Your task to perform on an android device: Find coffee shops on Maps Image 0: 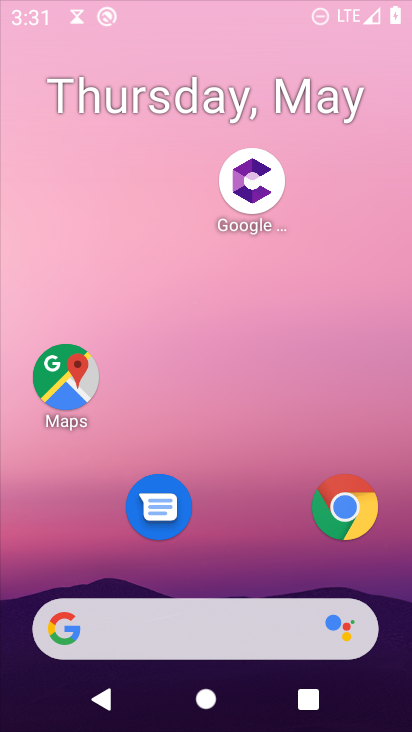
Step 0: press home button
Your task to perform on an android device: Find coffee shops on Maps Image 1: 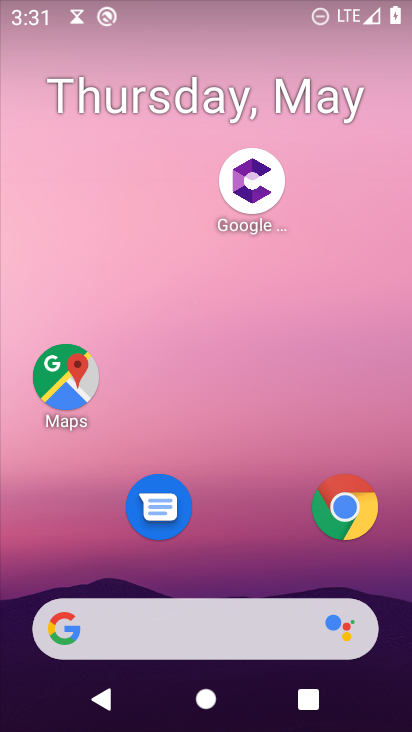
Step 1: click (64, 392)
Your task to perform on an android device: Find coffee shops on Maps Image 2: 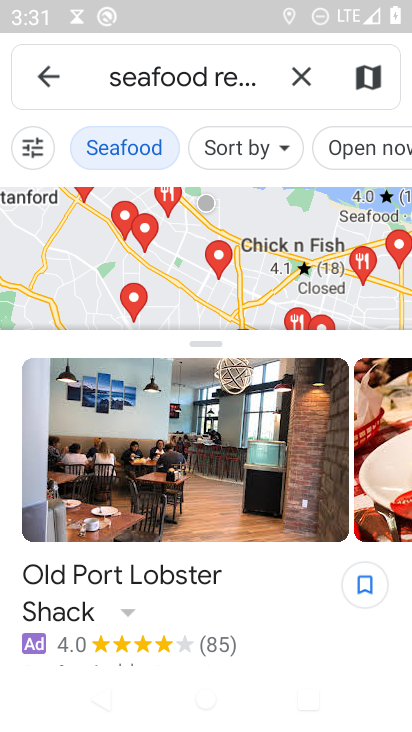
Step 2: click (298, 81)
Your task to perform on an android device: Find coffee shops on Maps Image 3: 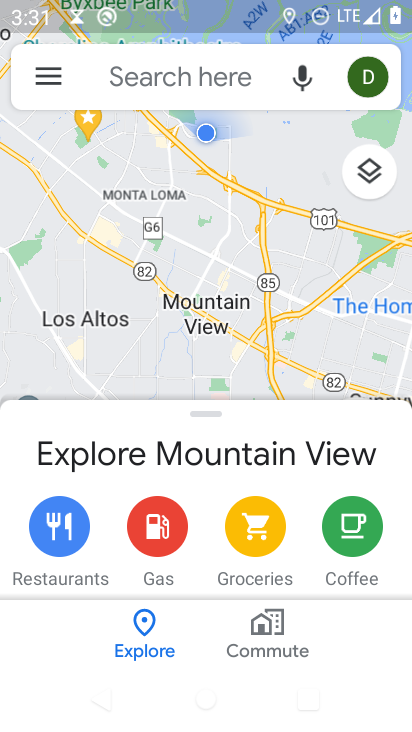
Step 3: click (238, 70)
Your task to perform on an android device: Find coffee shops on Maps Image 4: 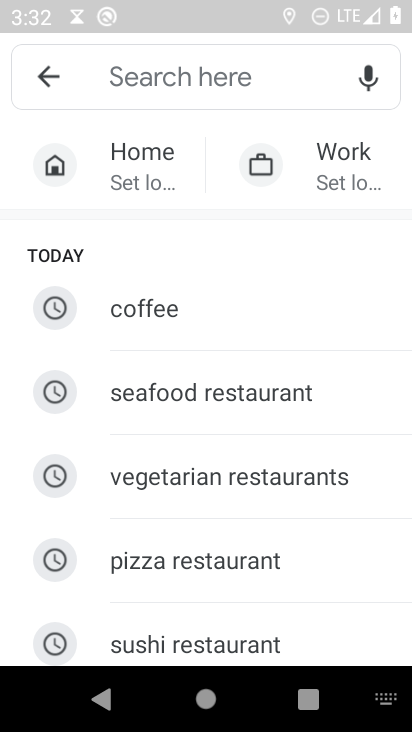
Step 4: type "coffee shops"
Your task to perform on an android device: Find coffee shops on Maps Image 5: 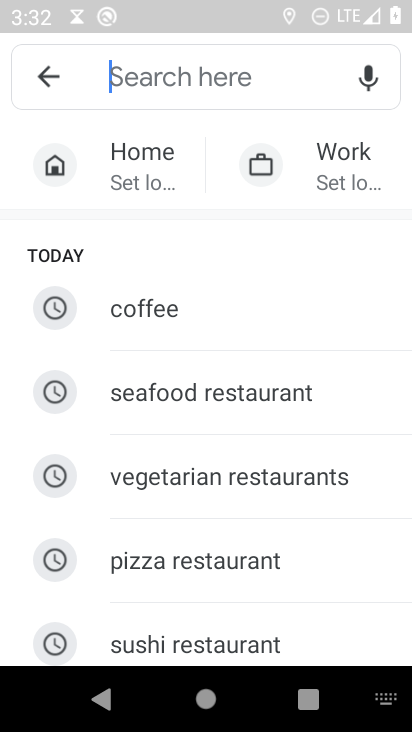
Step 5: click (259, 78)
Your task to perform on an android device: Find coffee shops on Maps Image 6: 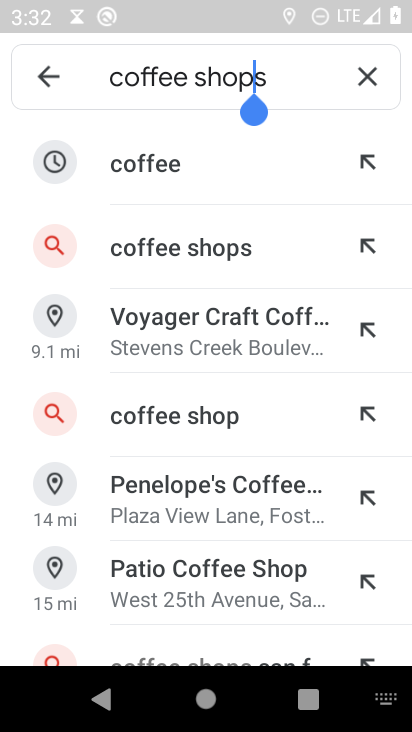
Step 6: click (187, 259)
Your task to perform on an android device: Find coffee shops on Maps Image 7: 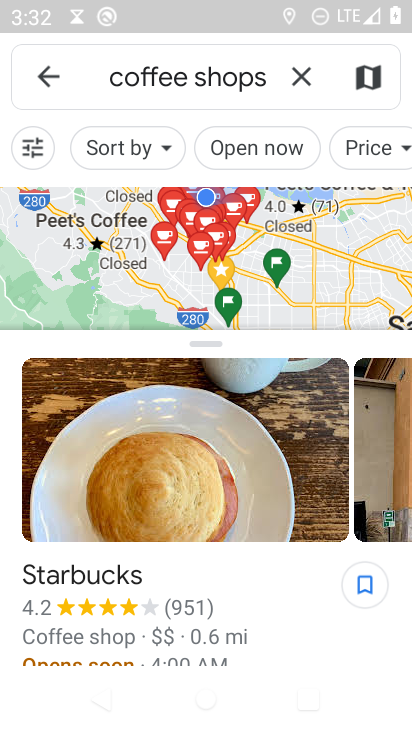
Step 7: task complete